Your task to perform on an android device: View the shopping cart on ebay. Search for macbook air on ebay, select the first entry, and add it to the cart. Image 0: 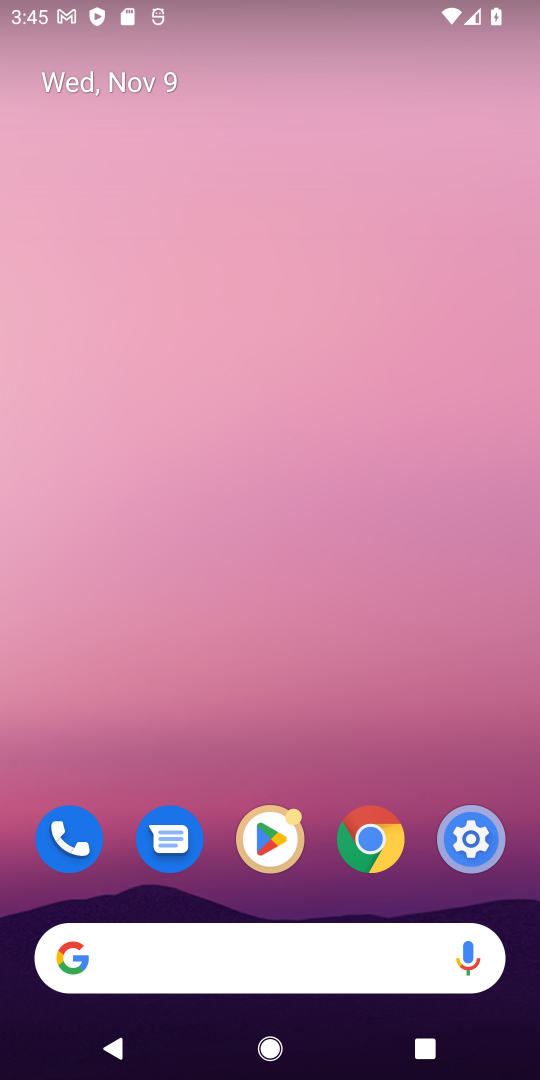
Step 0: click (238, 985)
Your task to perform on an android device: View the shopping cart on ebay. Search for macbook air on ebay, select the first entry, and add it to the cart. Image 1: 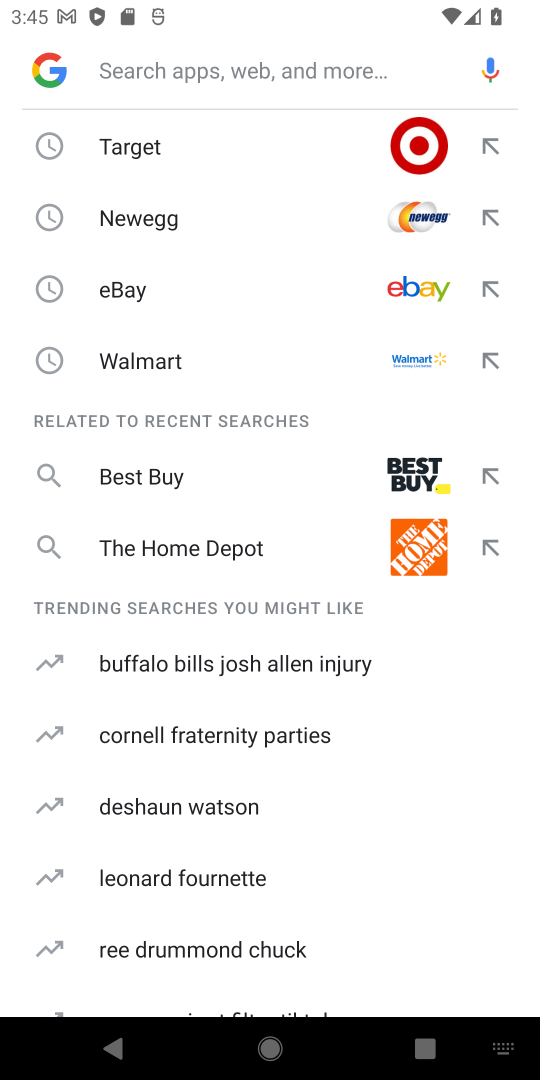
Step 1: click (152, 304)
Your task to perform on an android device: View the shopping cart on ebay. Search for macbook air on ebay, select the first entry, and add it to the cart. Image 2: 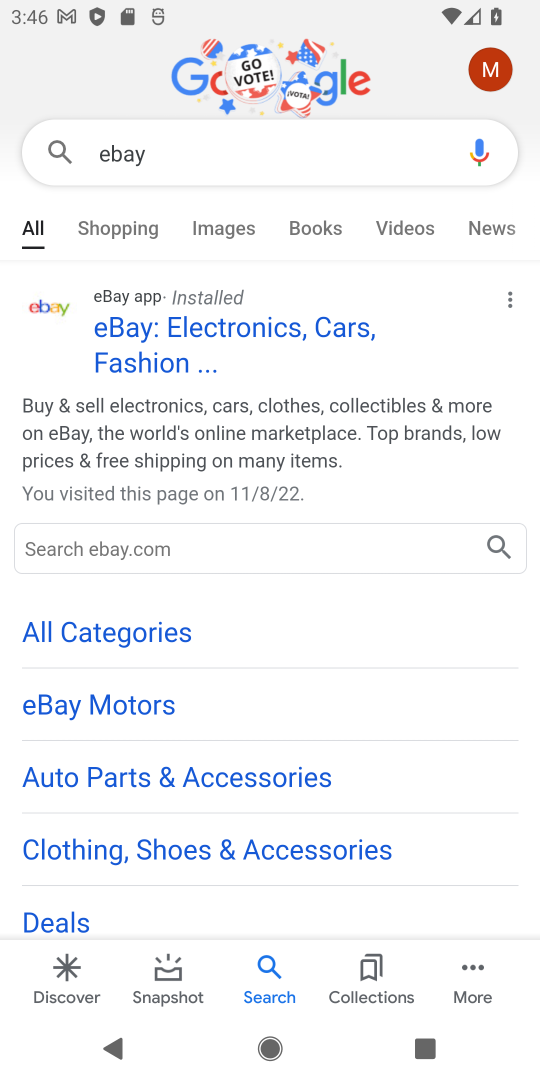
Step 2: click (122, 632)
Your task to perform on an android device: View the shopping cart on ebay. Search for macbook air on ebay, select the first entry, and add it to the cart. Image 3: 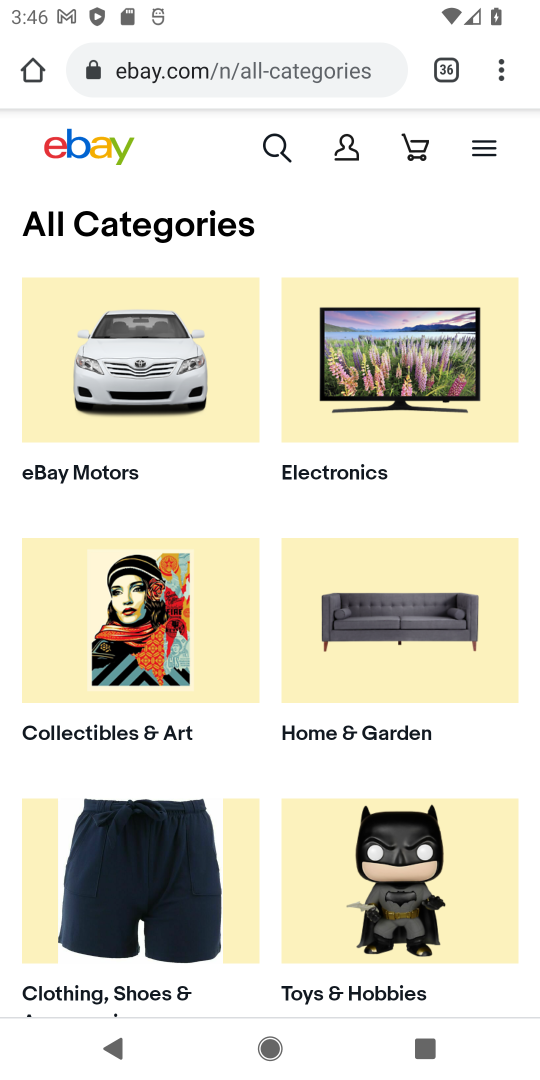
Step 3: click (106, 148)
Your task to perform on an android device: View the shopping cart on ebay. Search for macbook air on ebay, select the first entry, and add it to the cart. Image 4: 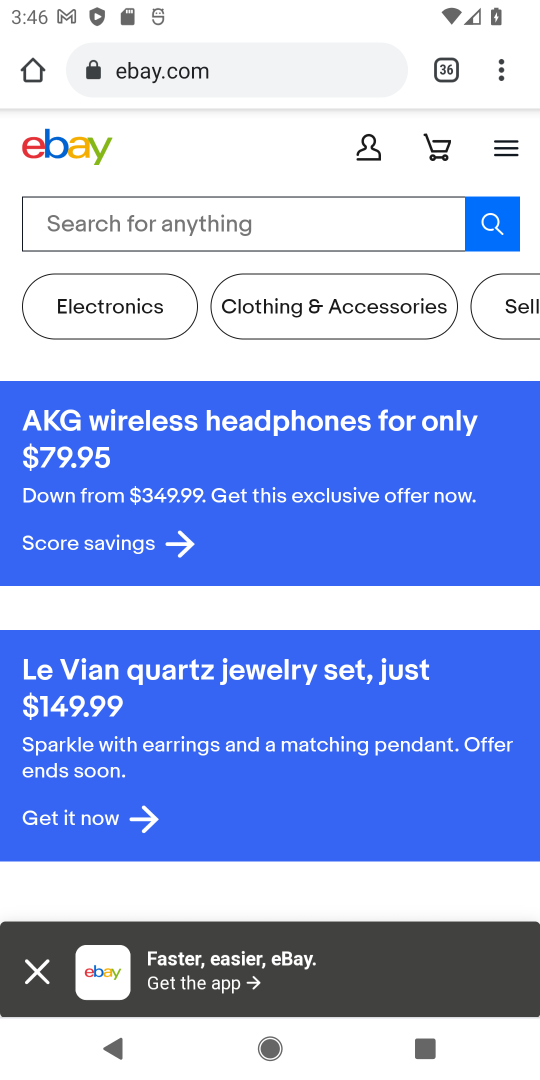
Step 4: click (194, 214)
Your task to perform on an android device: View the shopping cart on ebay. Search for macbook air on ebay, select the first entry, and add it to the cart. Image 5: 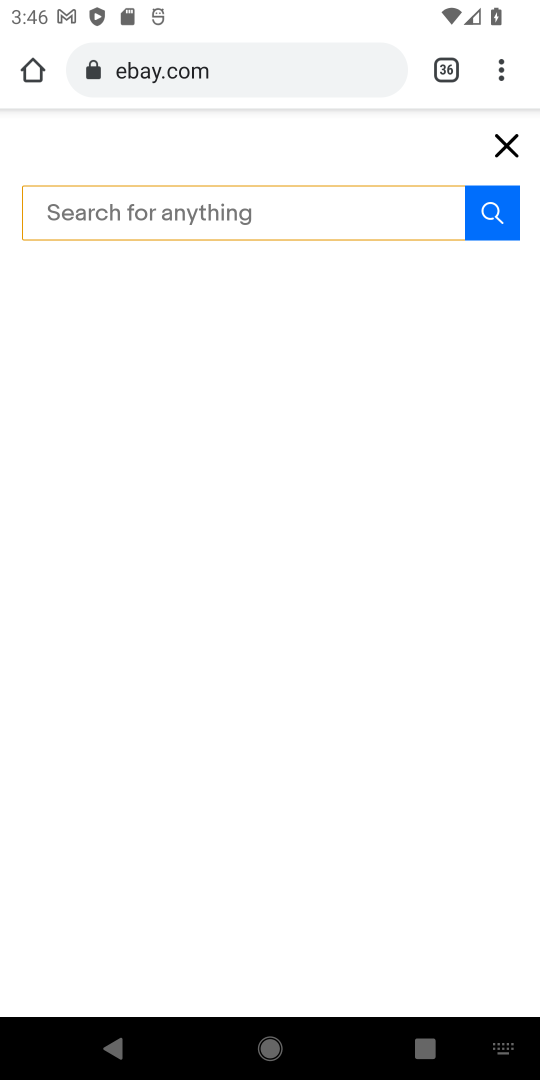
Step 5: type "macbook air"
Your task to perform on an android device: View the shopping cart on ebay. Search for macbook air on ebay, select the first entry, and add it to the cart. Image 6: 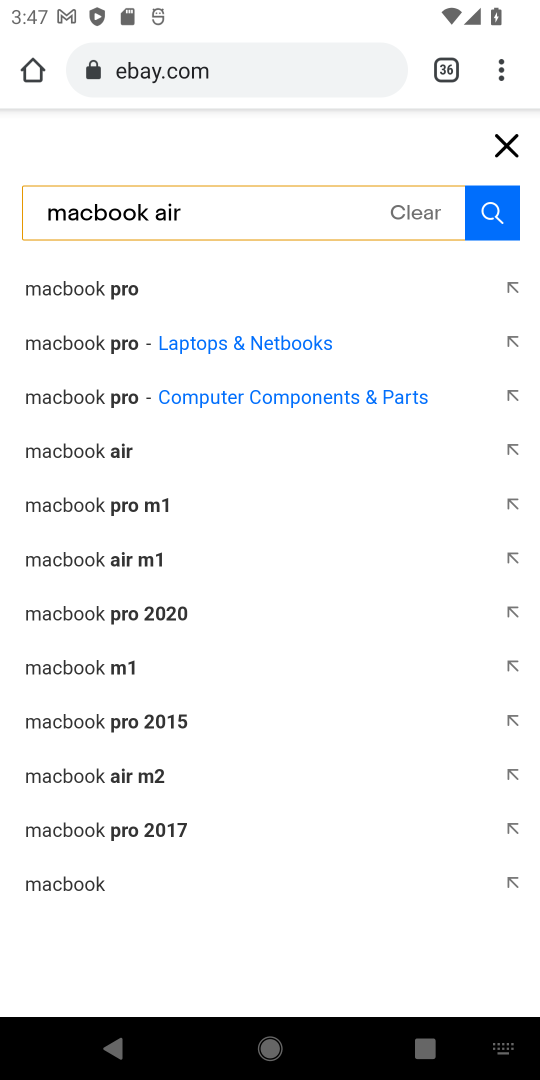
Step 6: click (114, 286)
Your task to perform on an android device: View the shopping cart on ebay. Search for macbook air on ebay, select the first entry, and add it to the cart. Image 7: 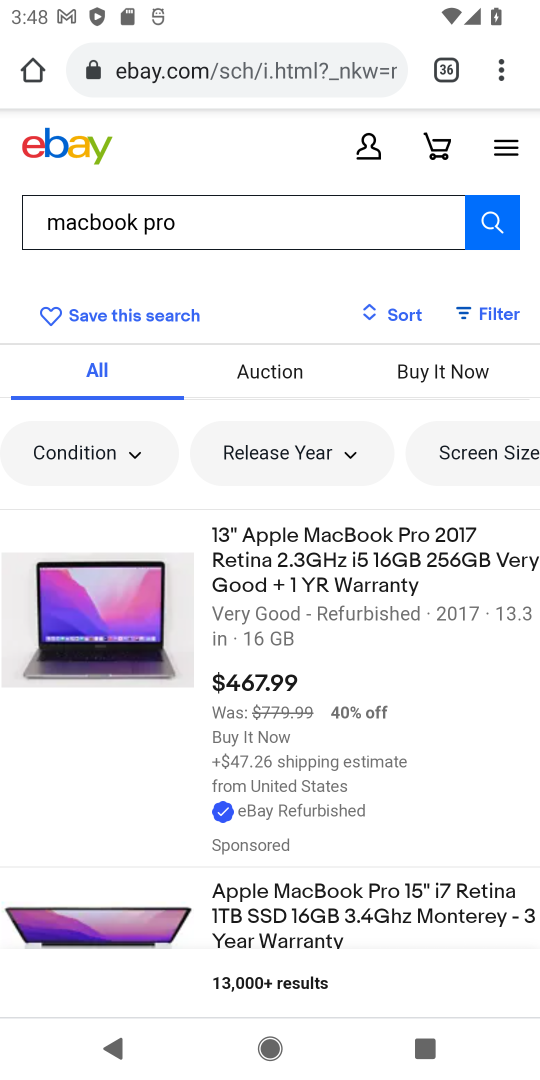
Step 7: click (366, 592)
Your task to perform on an android device: View the shopping cart on ebay. Search for macbook air on ebay, select the first entry, and add it to the cart. Image 8: 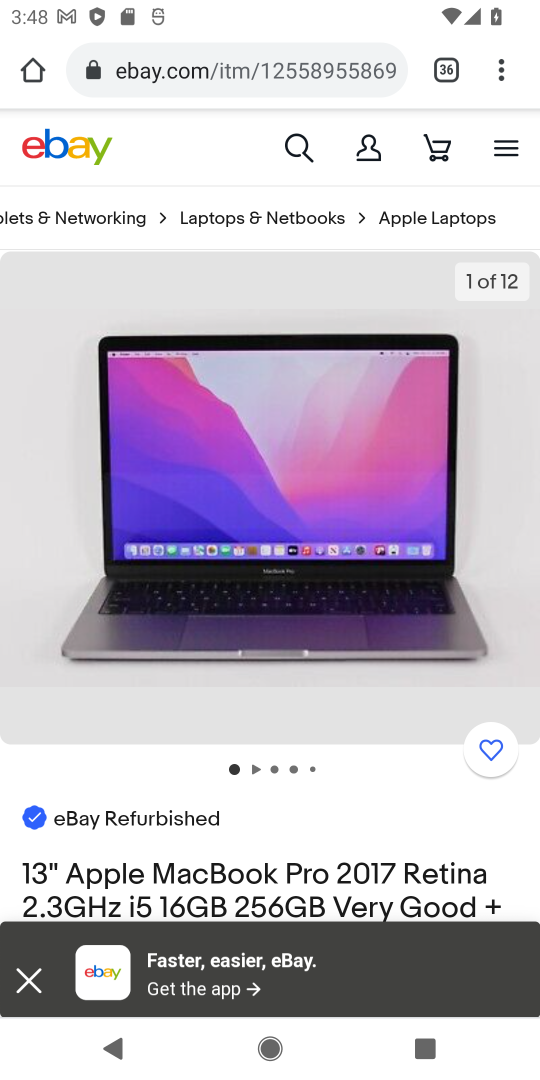
Step 8: click (42, 973)
Your task to perform on an android device: View the shopping cart on ebay. Search for macbook air on ebay, select the first entry, and add it to the cart. Image 9: 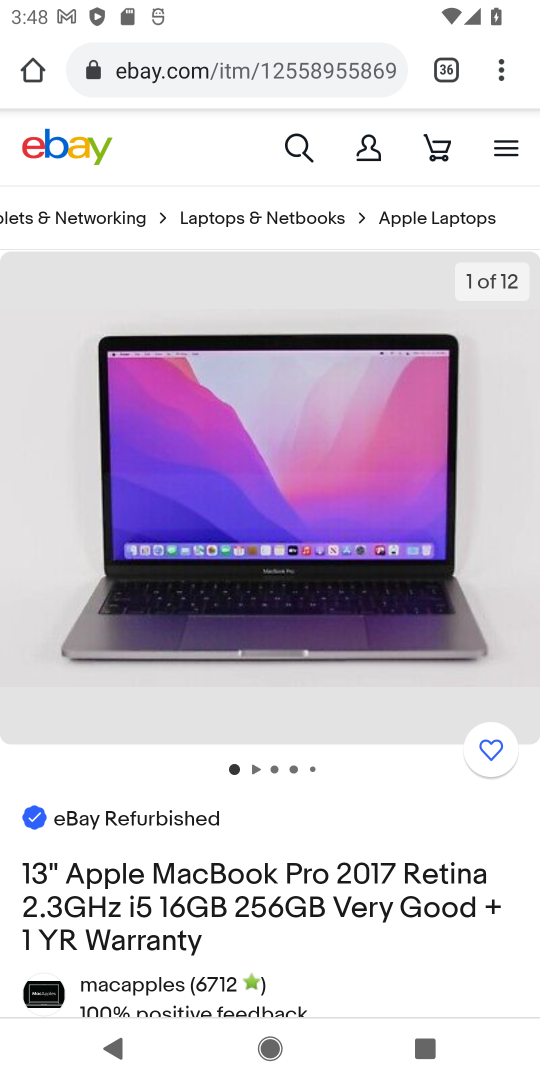
Step 9: task complete